Your task to perform on an android device: Open location settings Image 0: 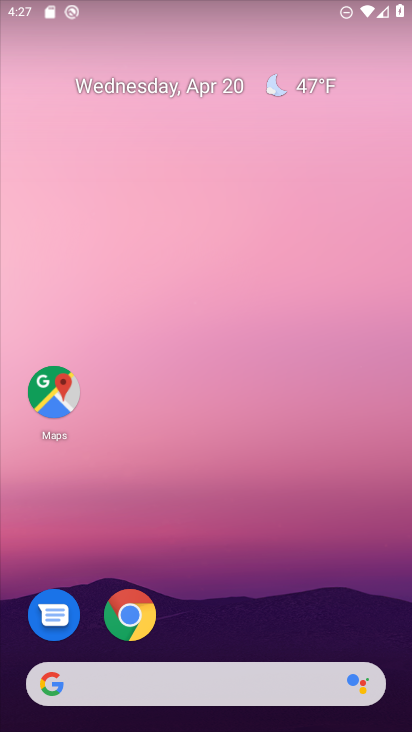
Step 0: drag from (224, 642) to (167, 8)
Your task to perform on an android device: Open location settings Image 1: 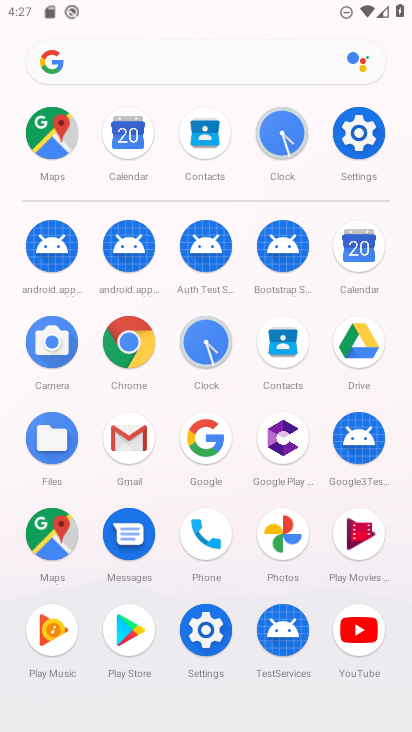
Step 1: click (374, 129)
Your task to perform on an android device: Open location settings Image 2: 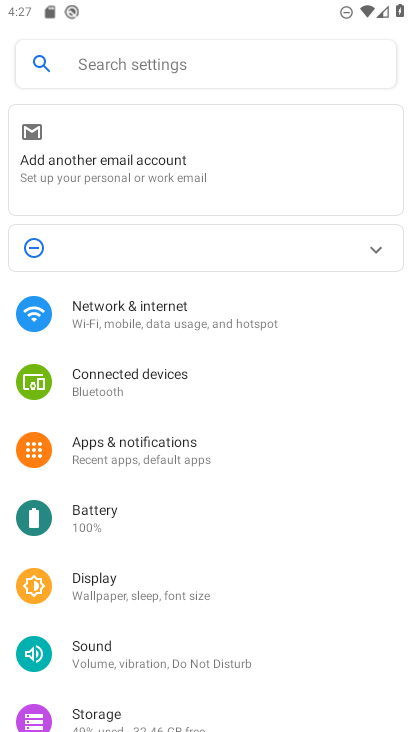
Step 2: drag from (174, 656) to (145, 209)
Your task to perform on an android device: Open location settings Image 3: 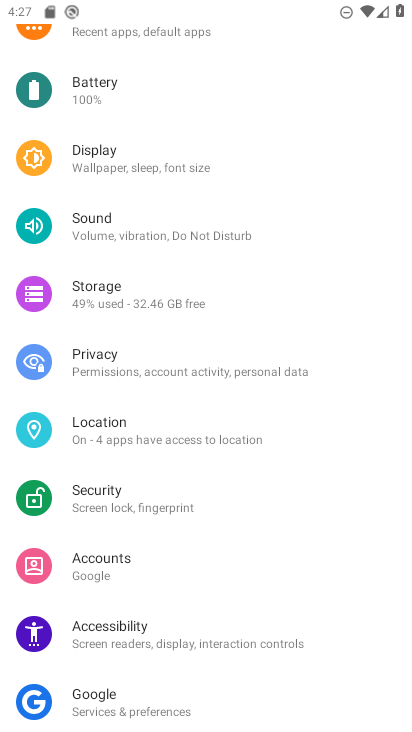
Step 3: click (116, 442)
Your task to perform on an android device: Open location settings Image 4: 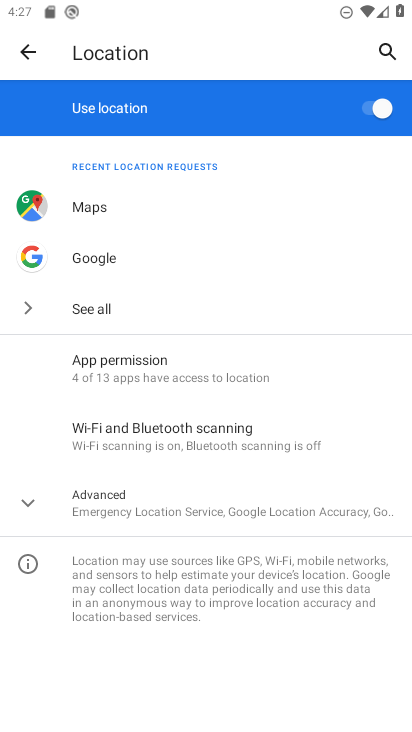
Step 4: click (151, 501)
Your task to perform on an android device: Open location settings Image 5: 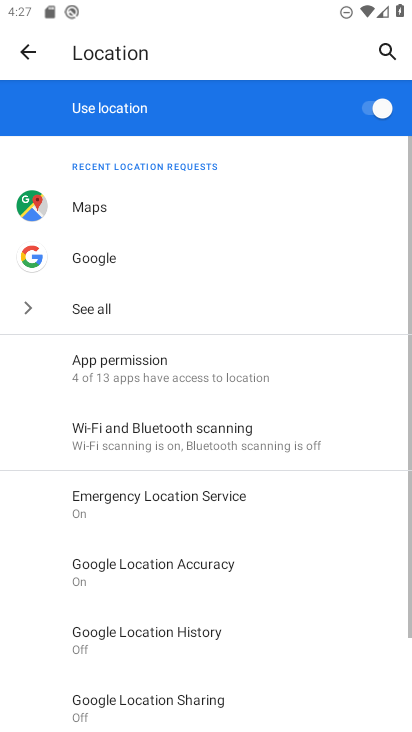
Step 5: task complete